Your task to perform on an android device: Open Youtube and go to "Your channel" Image 0: 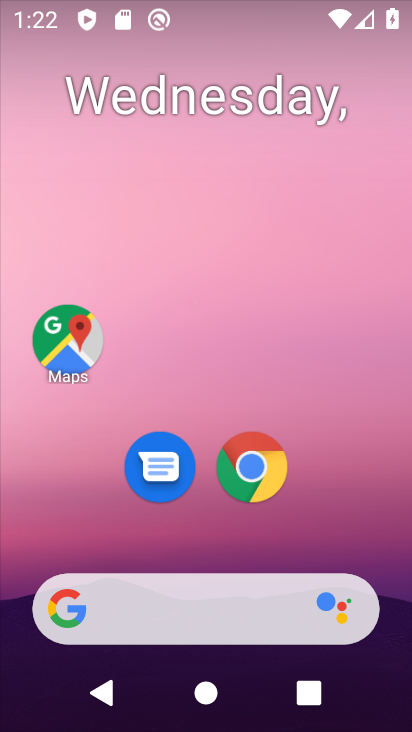
Step 0: drag from (325, 497) to (262, 3)
Your task to perform on an android device: Open Youtube and go to "Your channel" Image 1: 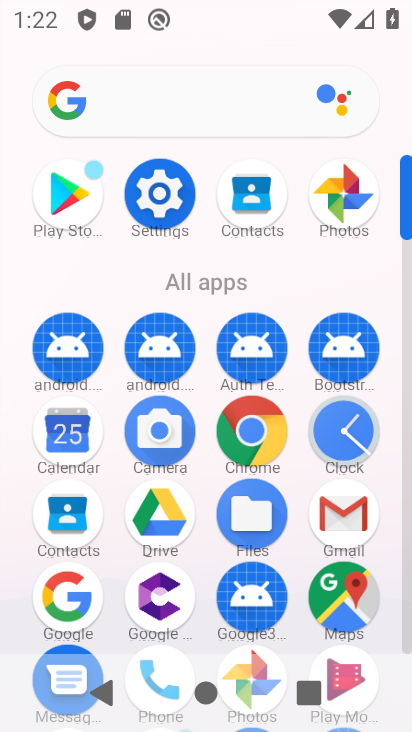
Step 1: drag from (311, 631) to (278, 181)
Your task to perform on an android device: Open Youtube and go to "Your channel" Image 2: 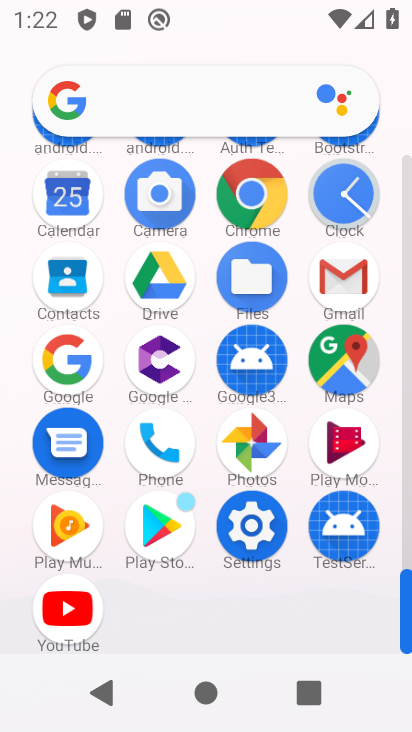
Step 2: click (75, 614)
Your task to perform on an android device: Open Youtube and go to "Your channel" Image 3: 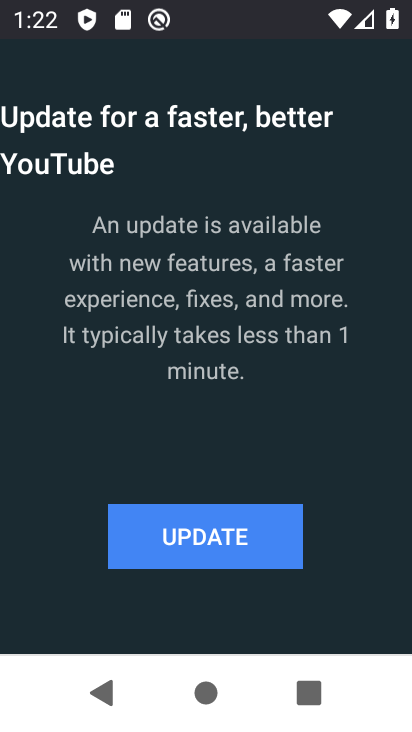
Step 3: click (240, 531)
Your task to perform on an android device: Open Youtube and go to "Your channel" Image 4: 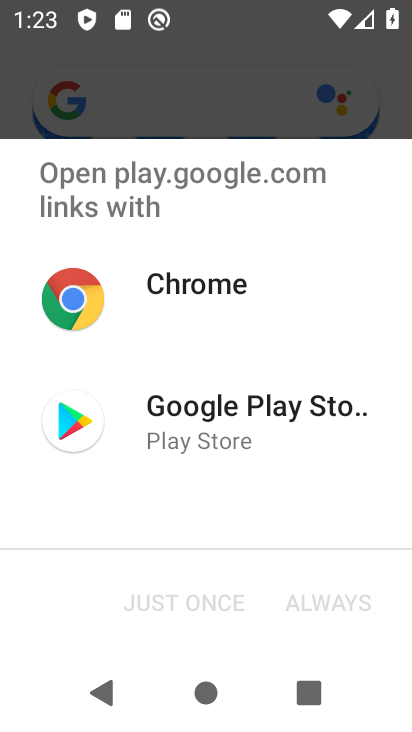
Step 4: click (225, 418)
Your task to perform on an android device: Open Youtube and go to "Your channel" Image 5: 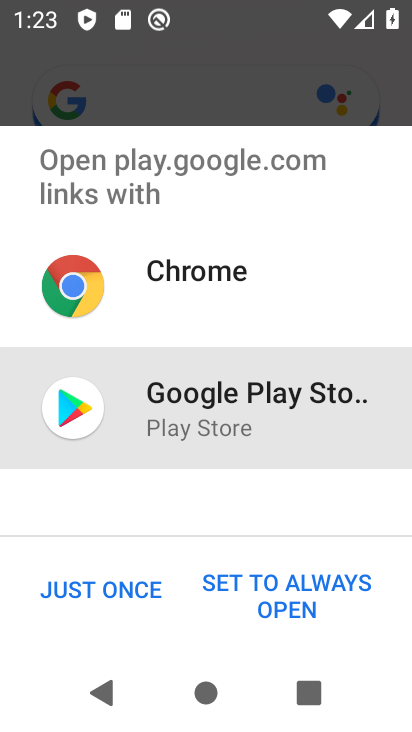
Step 5: click (144, 583)
Your task to perform on an android device: Open Youtube and go to "Your channel" Image 6: 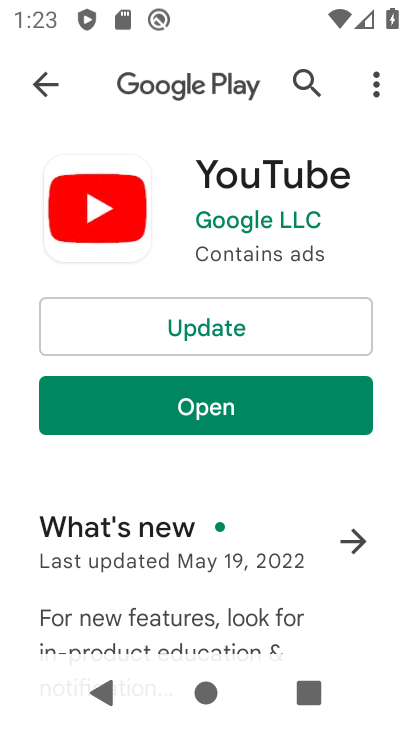
Step 6: click (234, 310)
Your task to perform on an android device: Open Youtube and go to "Your channel" Image 7: 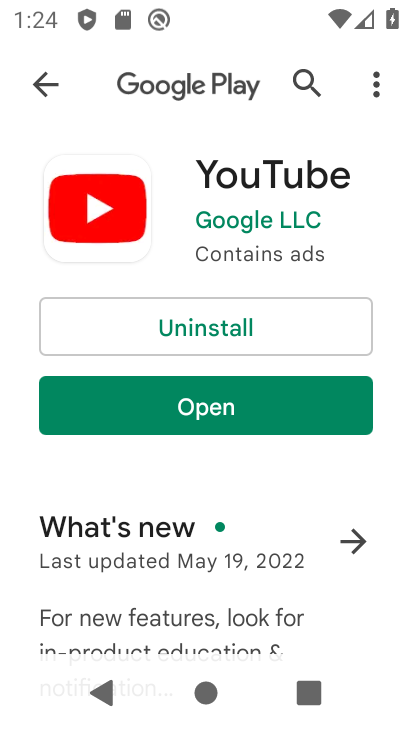
Step 7: click (297, 382)
Your task to perform on an android device: Open Youtube and go to "Your channel" Image 8: 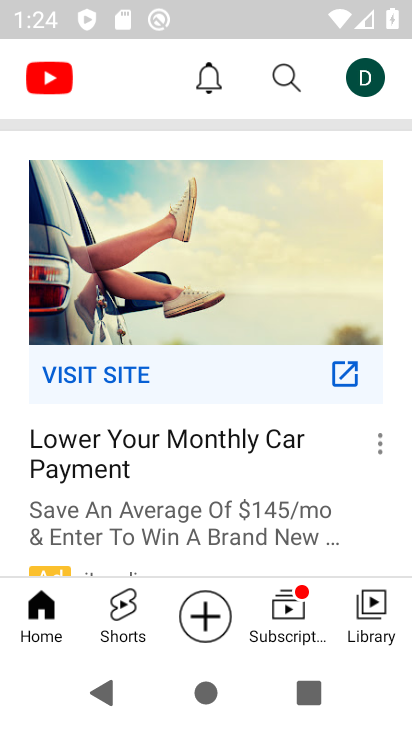
Step 8: click (361, 64)
Your task to perform on an android device: Open Youtube and go to "Your channel" Image 9: 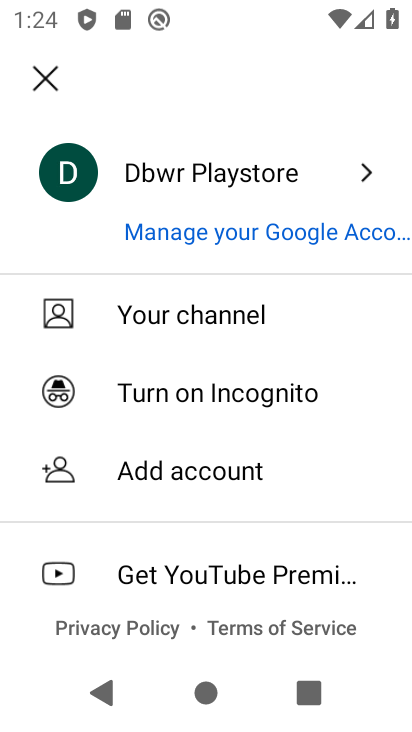
Step 9: click (191, 320)
Your task to perform on an android device: Open Youtube and go to "Your channel" Image 10: 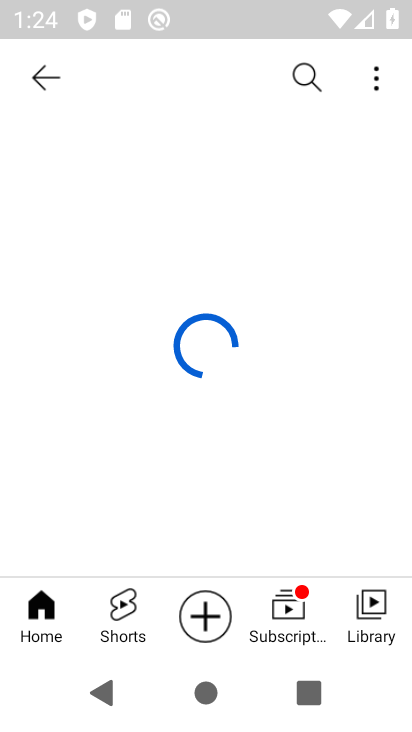
Step 10: task complete